Your task to perform on an android device: turn on bluetooth scan Image 0: 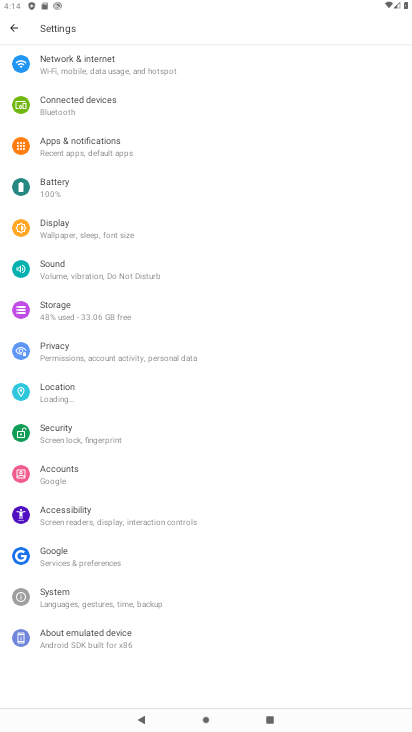
Step 0: click (72, 382)
Your task to perform on an android device: turn on bluetooth scan Image 1: 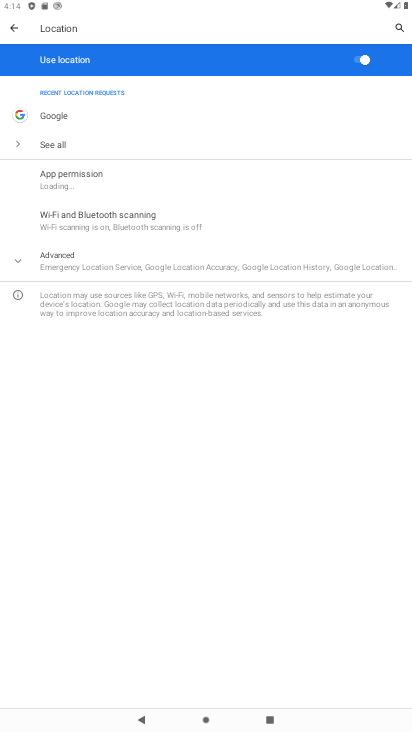
Step 1: click (70, 264)
Your task to perform on an android device: turn on bluetooth scan Image 2: 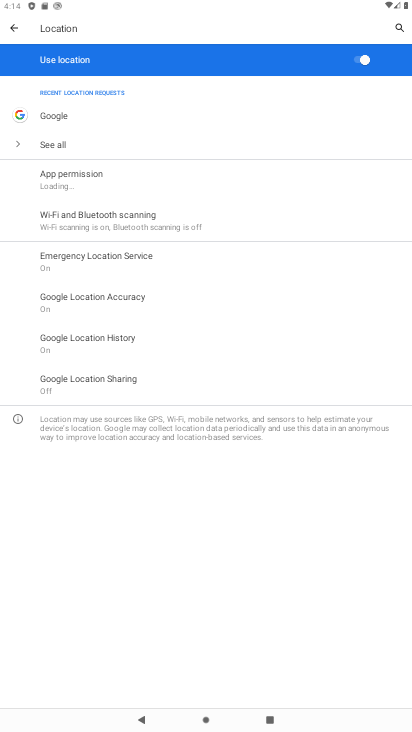
Step 2: click (68, 216)
Your task to perform on an android device: turn on bluetooth scan Image 3: 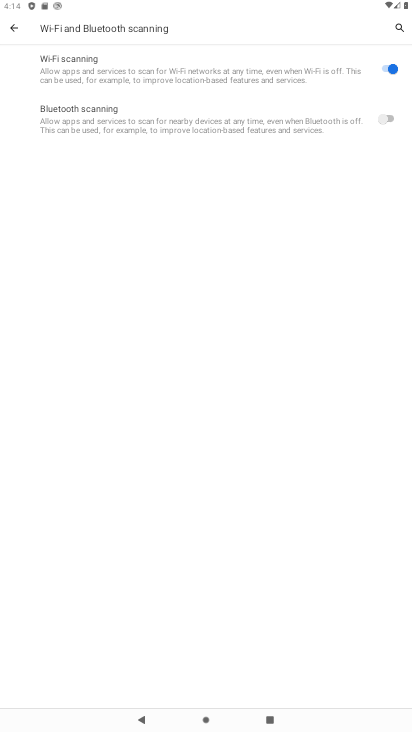
Step 3: click (95, 126)
Your task to perform on an android device: turn on bluetooth scan Image 4: 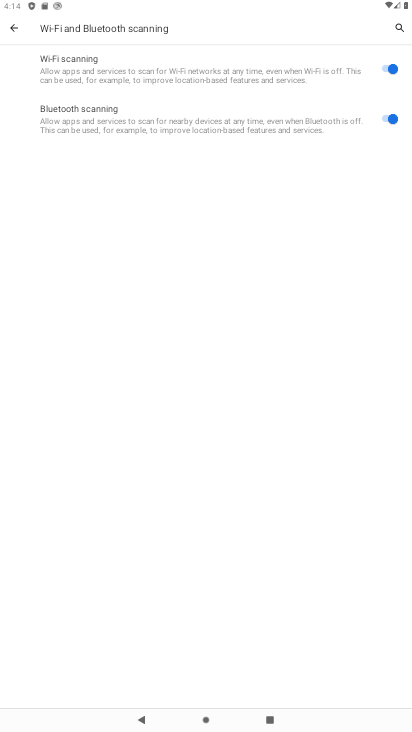
Step 4: task complete